Your task to perform on an android device: Open Maps and search for coffee Image 0: 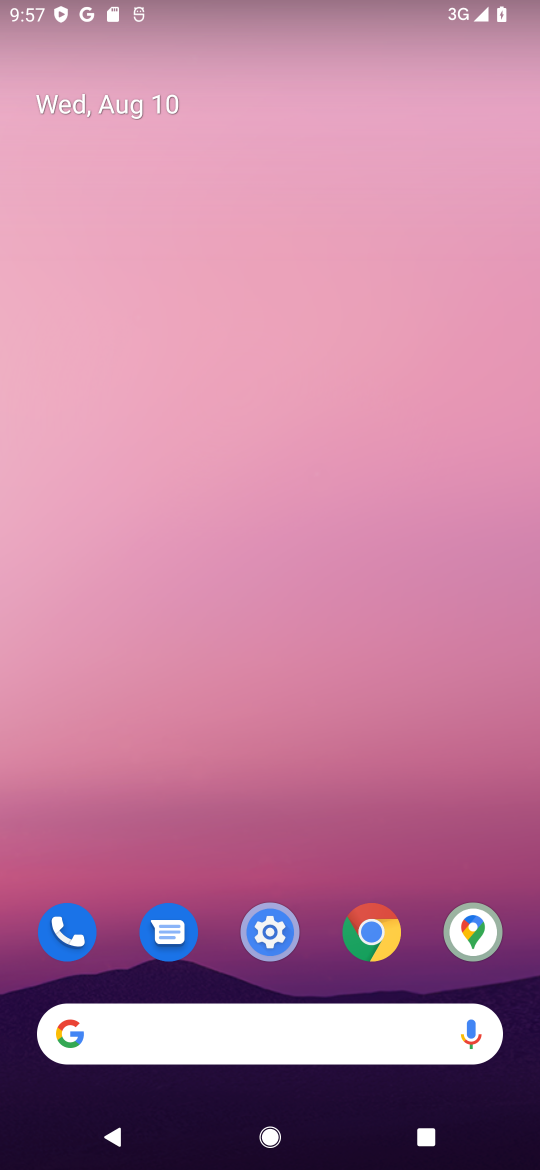
Step 0: click (471, 922)
Your task to perform on an android device: Open Maps and search for coffee Image 1: 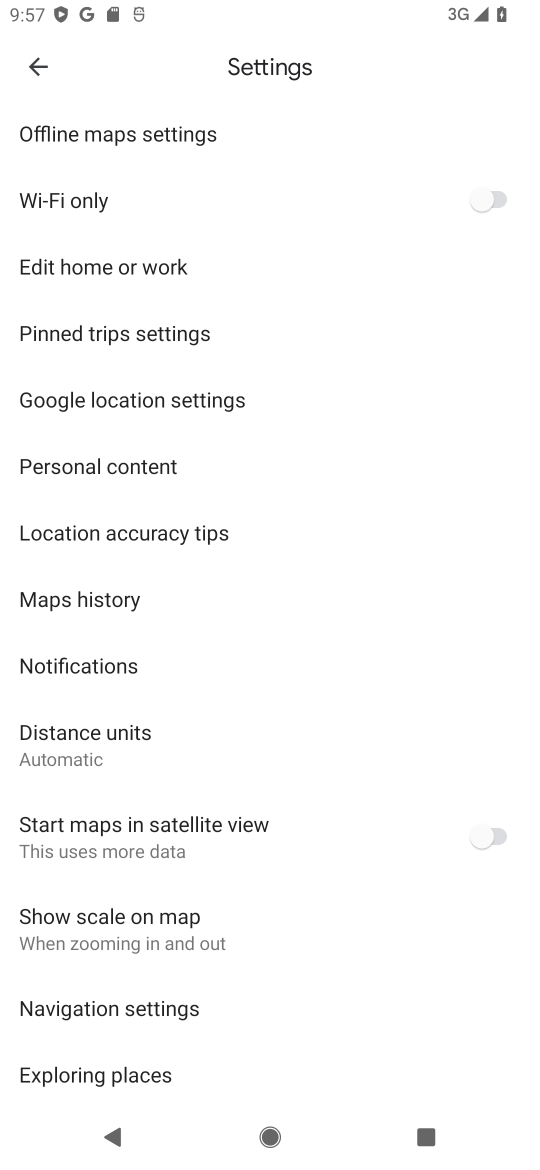
Step 1: click (52, 61)
Your task to perform on an android device: Open Maps and search for coffee Image 2: 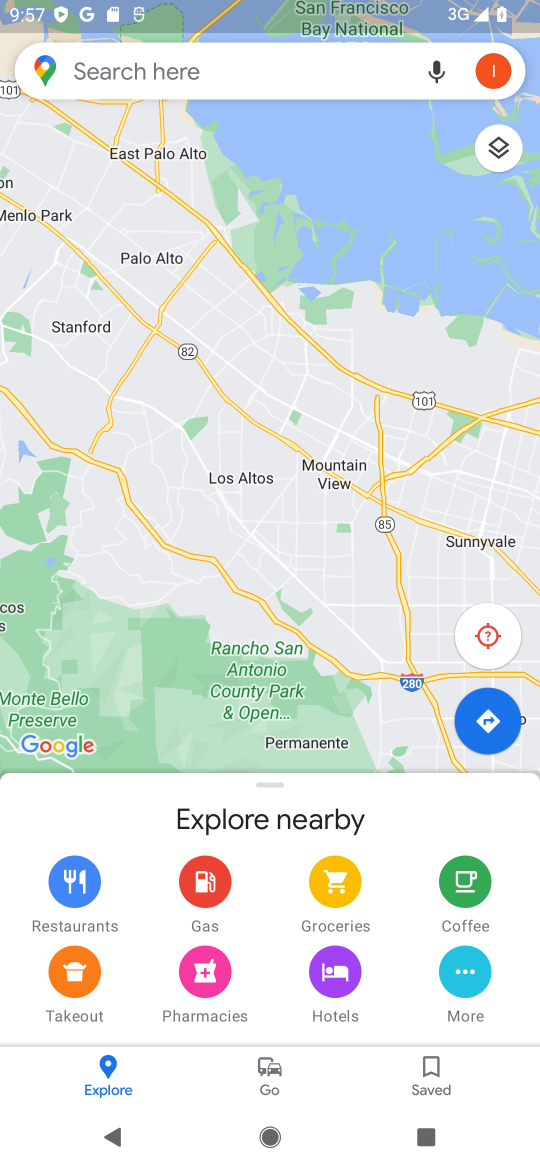
Step 2: click (258, 54)
Your task to perform on an android device: Open Maps and search for coffee Image 3: 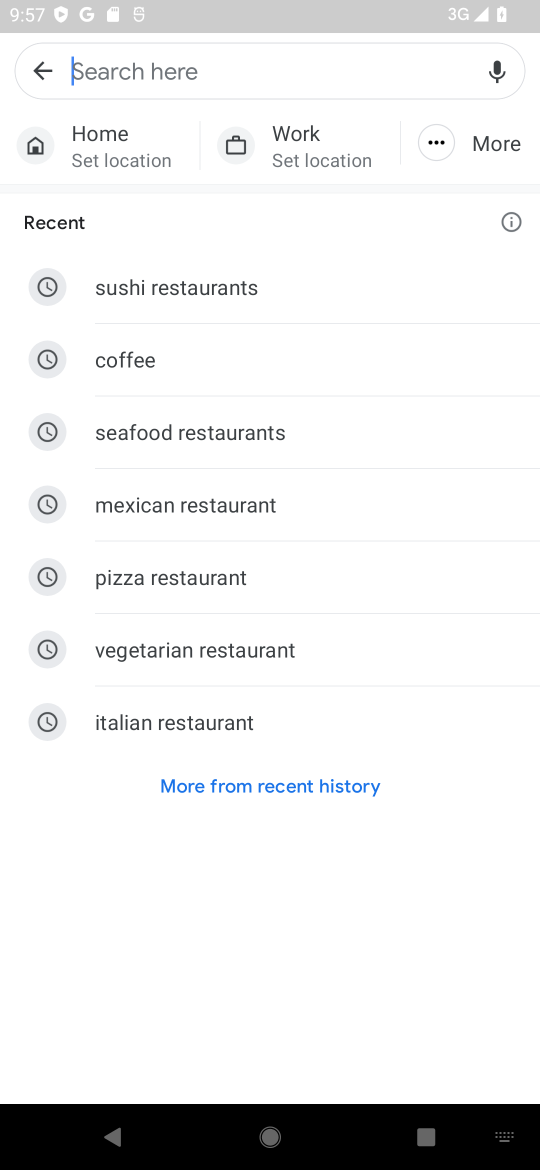
Step 3: click (126, 360)
Your task to perform on an android device: Open Maps and search for coffee Image 4: 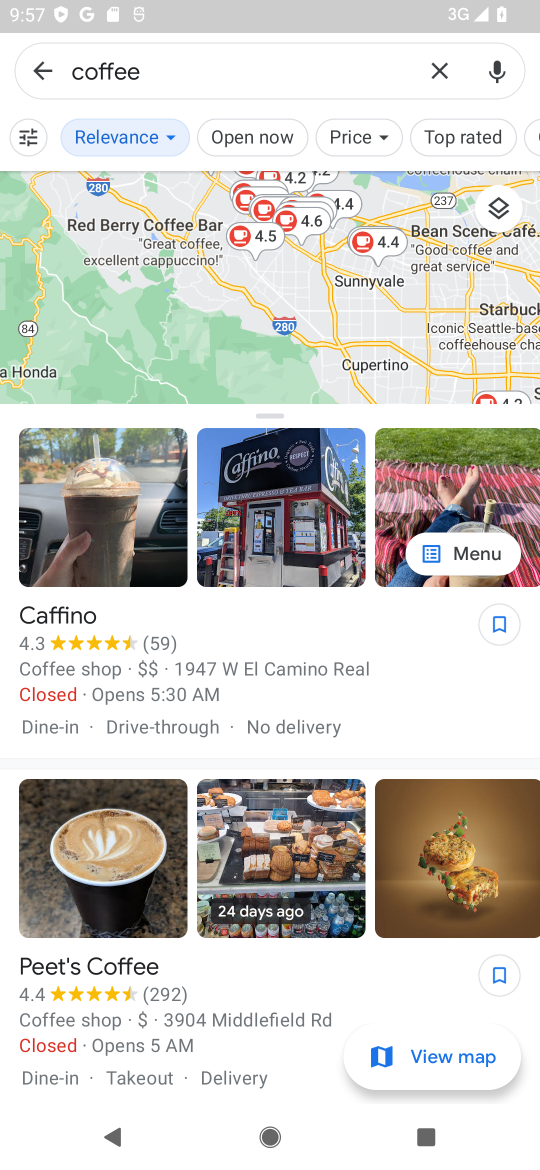
Step 4: task complete